Your task to perform on an android device: allow notifications from all sites in the chrome app Image 0: 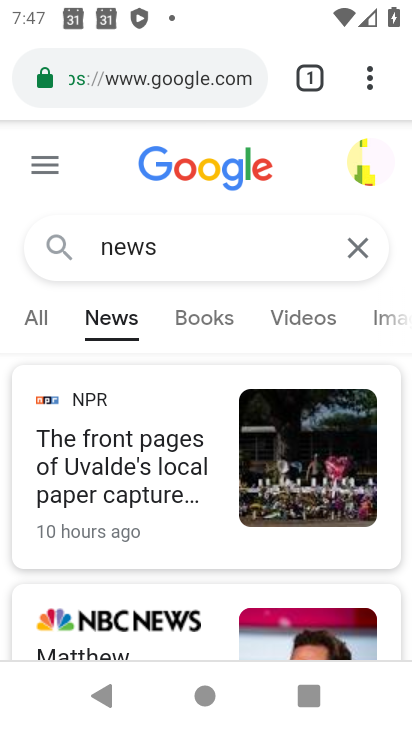
Step 0: press home button
Your task to perform on an android device: allow notifications from all sites in the chrome app Image 1: 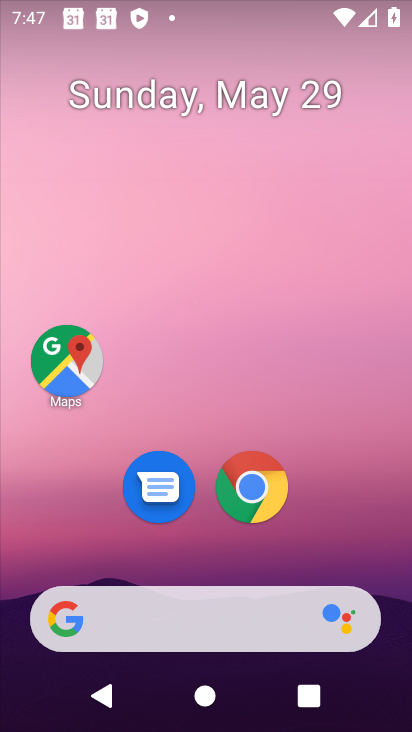
Step 1: click (273, 505)
Your task to perform on an android device: allow notifications from all sites in the chrome app Image 2: 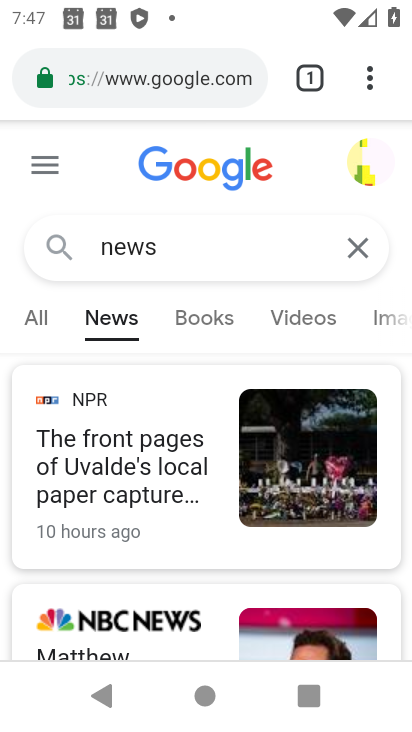
Step 2: click (378, 93)
Your task to perform on an android device: allow notifications from all sites in the chrome app Image 3: 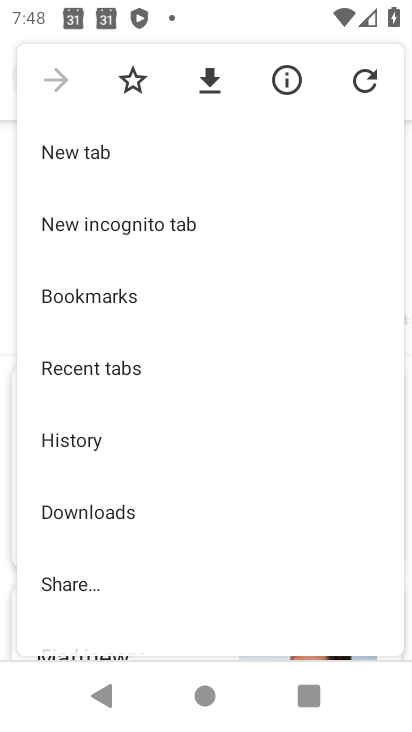
Step 3: drag from (107, 591) to (211, 304)
Your task to perform on an android device: allow notifications from all sites in the chrome app Image 4: 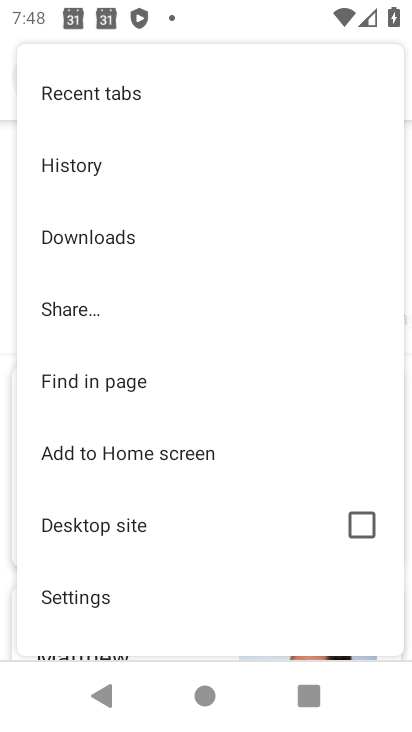
Step 4: click (115, 583)
Your task to perform on an android device: allow notifications from all sites in the chrome app Image 5: 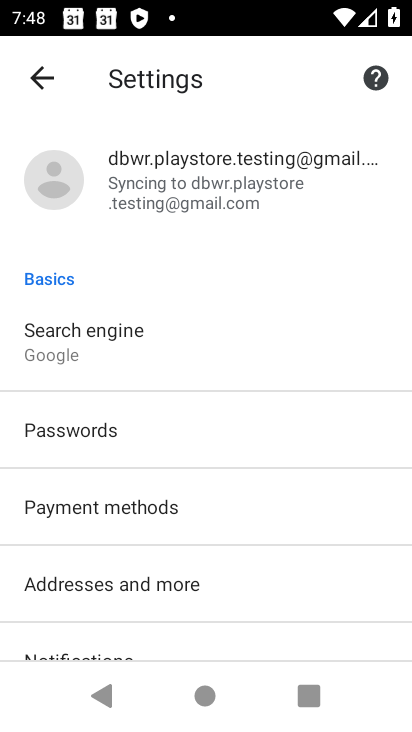
Step 5: drag from (115, 583) to (89, 159)
Your task to perform on an android device: allow notifications from all sites in the chrome app Image 6: 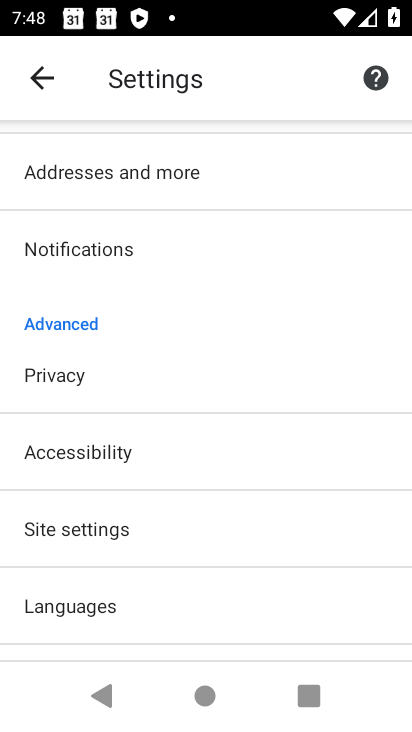
Step 6: click (95, 252)
Your task to perform on an android device: allow notifications from all sites in the chrome app Image 7: 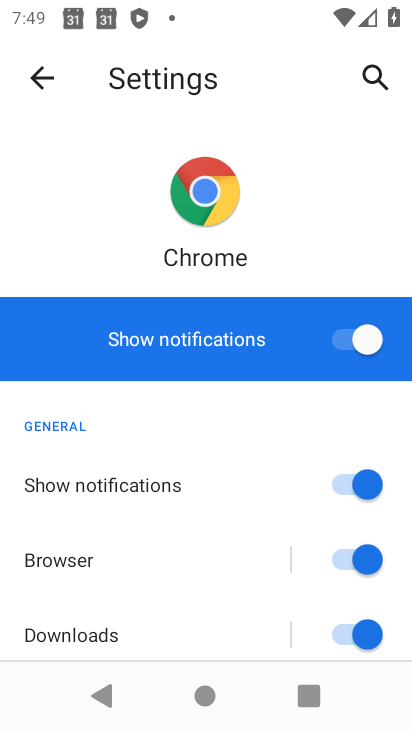
Step 7: task complete